Your task to perform on an android device: change notification settings in the gmail app Image 0: 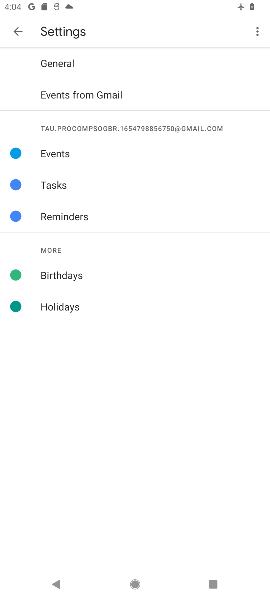
Step 0: click (13, 30)
Your task to perform on an android device: change notification settings in the gmail app Image 1: 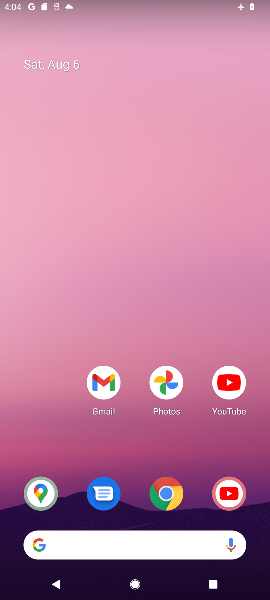
Step 1: drag from (159, 527) to (152, 141)
Your task to perform on an android device: change notification settings in the gmail app Image 2: 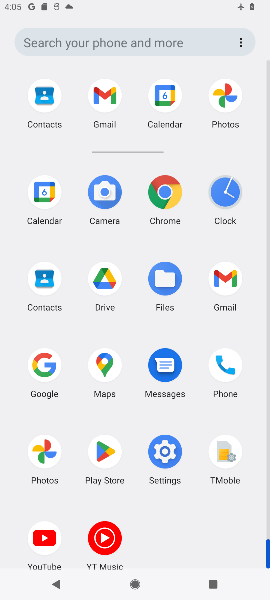
Step 2: click (221, 284)
Your task to perform on an android device: change notification settings in the gmail app Image 3: 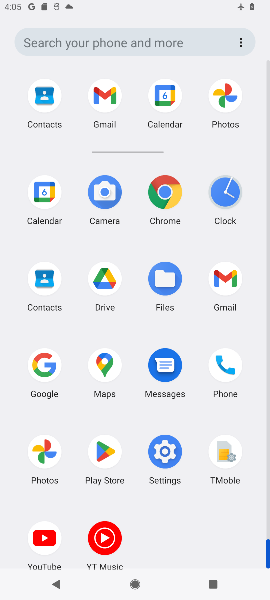
Step 3: click (221, 284)
Your task to perform on an android device: change notification settings in the gmail app Image 4: 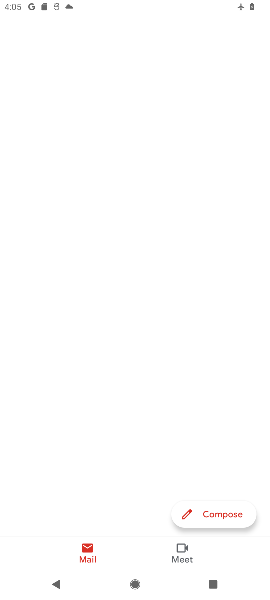
Step 4: click (221, 284)
Your task to perform on an android device: change notification settings in the gmail app Image 5: 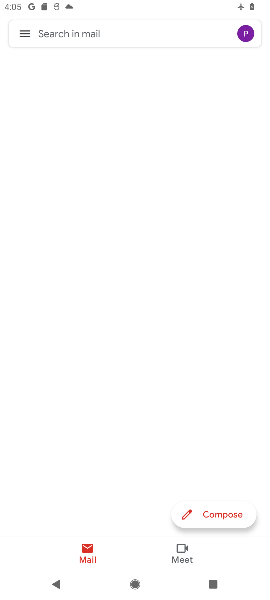
Step 5: click (221, 284)
Your task to perform on an android device: change notification settings in the gmail app Image 6: 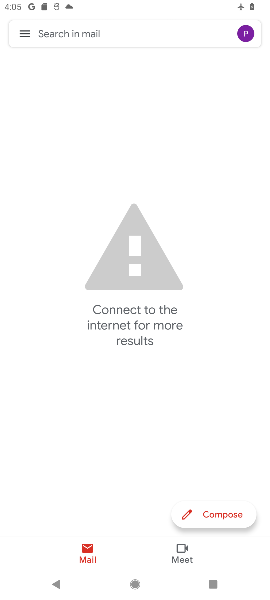
Step 6: click (25, 28)
Your task to perform on an android device: change notification settings in the gmail app Image 7: 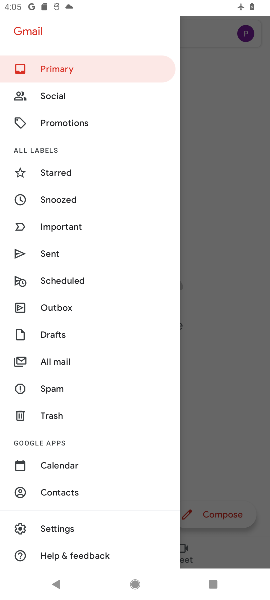
Step 7: click (60, 528)
Your task to perform on an android device: change notification settings in the gmail app Image 8: 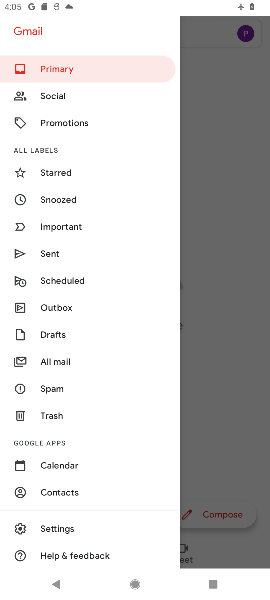
Step 8: click (60, 528)
Your task to perform on an android device: change notification settings in the gmail app Image 9: 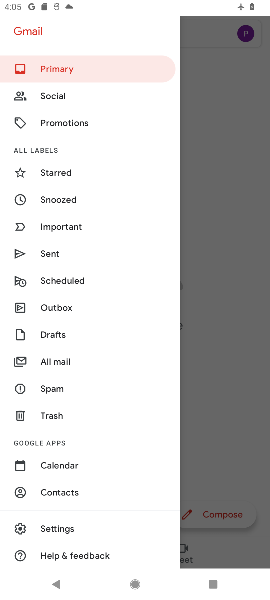
Step 9: click (60, 528)
Your task to perform on an android device: change notification settings in the gmail app Image 10: 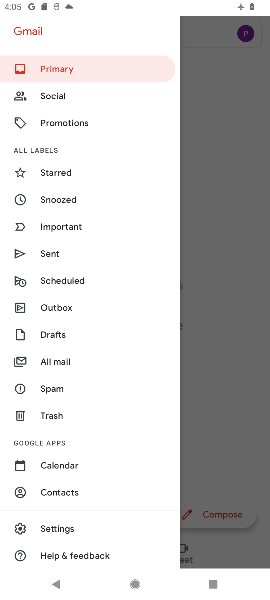
Step 10: click (60, 528)
Your task to perform on an android device: change notification settings in the gmail app Image 11: 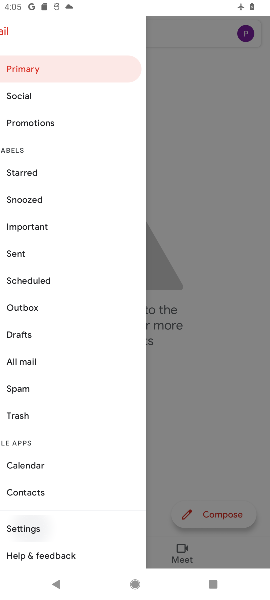
Step 11: click (60, 528)
Your task to perform on an android device: change notification settings in the gmail app Image 12: 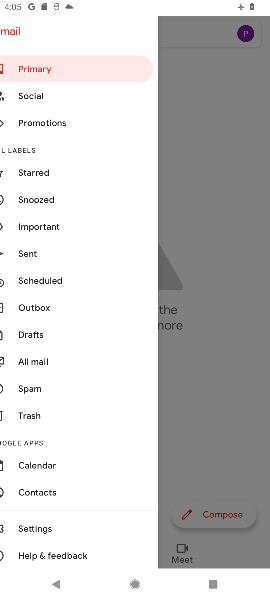
Step 12: click (60, 528)
Your task to perform on an android device: change notification settings in the gmail app Image 13: 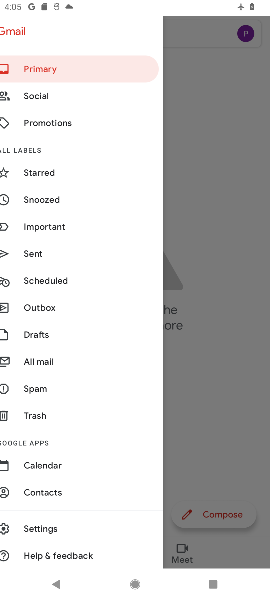
Step 13: click (61, 528)
Your task to perform on an android device: change notification settings in the gmail app Image 14: 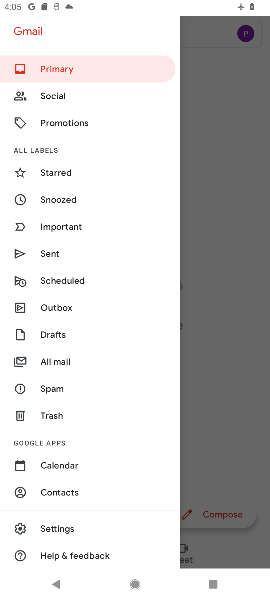
Step 14: click (53, 522)
Your task to perform on an android device: change notification settings in the gmail app Image 15: 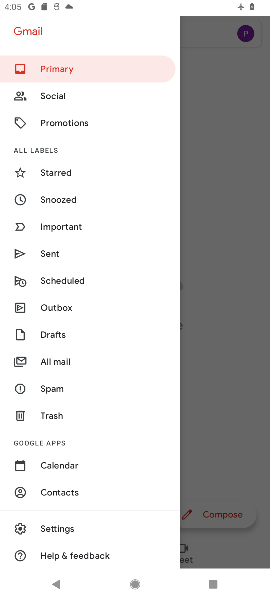
Step 15: click (53, 522)
Your task to perform on an android device: change notification settings in the gmail app Image 16: 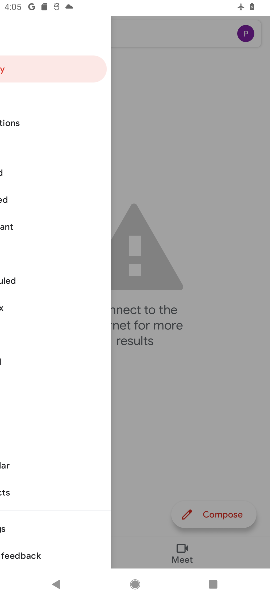
Step 16: click (53, 522)
Your task to perform on an android device: change notification settings in the gmail app Image 17: 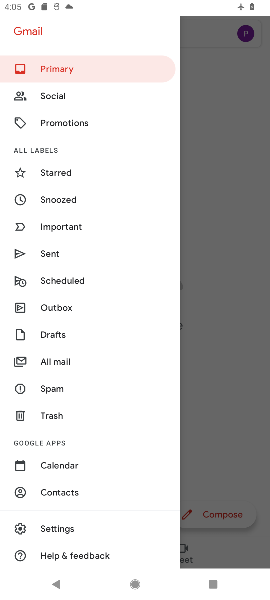
Step 17: click (61, 517)
Your task to perform on an android device: change notification settings in the gmail app Image 18: 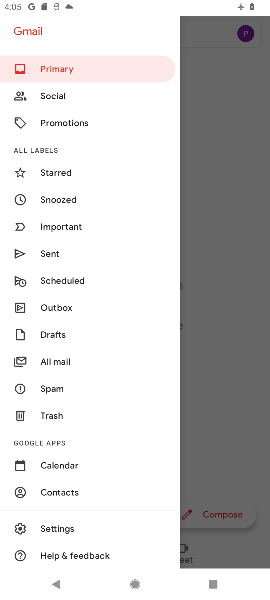
Step 18: click (58, 522)
Your task to perform on an android device: change notification settings in the gmail app Image 19: 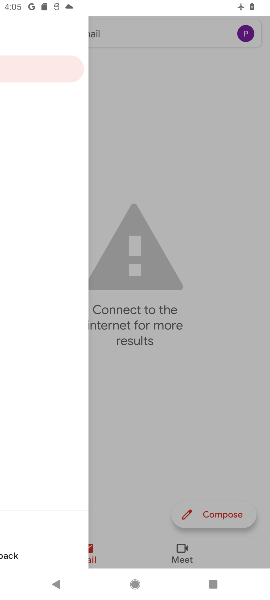
Step 19: click (57, 523)
Your task to perform on an android device: change notification settings in the gmail app Image 20: 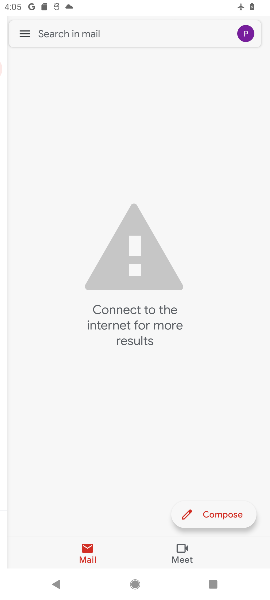
Step 20: click (56, 525)
Your task to perform on an android device: change notification settings in the gmail app Image 21: 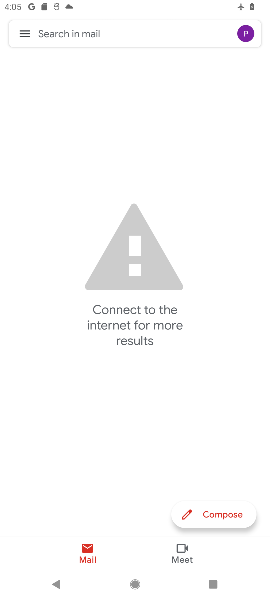
Step 21: click (56, 525)
Your task to perform on an android device: change notification settings in the gmail app Image 22: 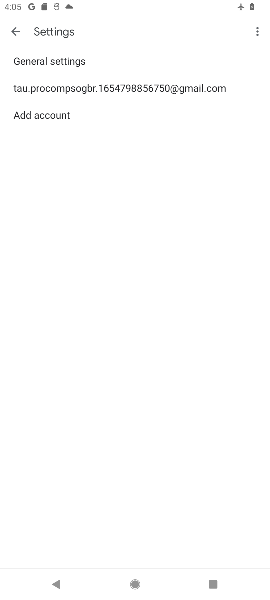
Step 22: click (72, 82)
Your task to perform on an android device: change notification settings in the gmail app Image 23: 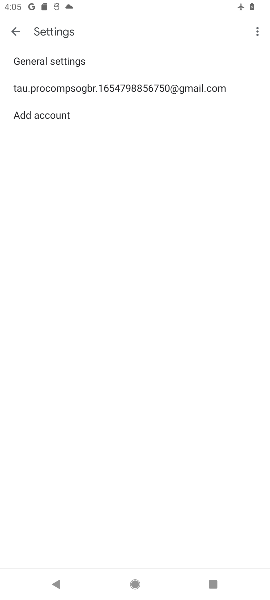
Step 23: click (72, 82)
Your task to perform on an android device: change notification settings in the gmail app Image 24: 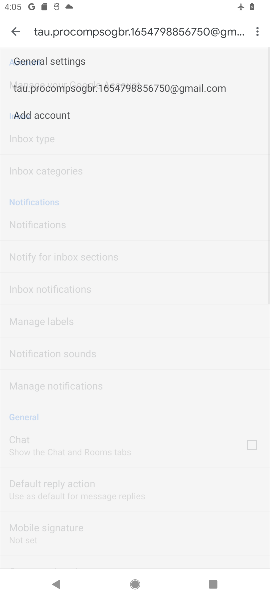
Step 24: click (70, 80)
Your task to perform on an android device: change notification settings in the gmail app Image 25: 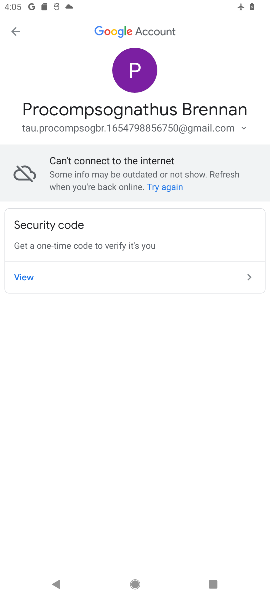
Step 25: click (16, 38)
Your task to perform on an android device: change notification settings in the gmail app Image 26: 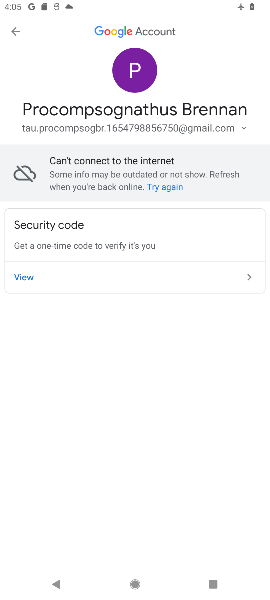
Step 26: click (12, 33)
Your task to perform on an android device: change notification settings in the gmail app Image 27: 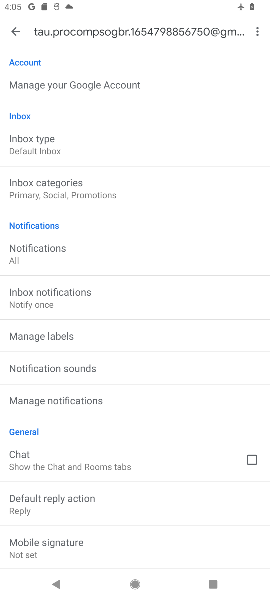
Step 27: click (35, 243)
Your task to perform on an android device: change notification settings in the gmail app Image 28: 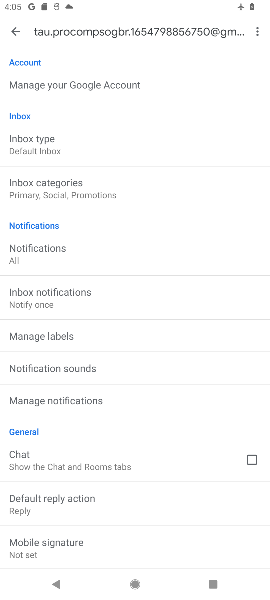
Step 28: click (35, 243)
Your task to perform on an android device: change notification settings in the gmail app Image 29: 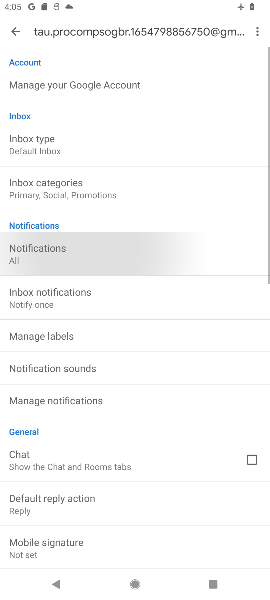
Step 29: click (35, 243)
Your task to perform on an android device: change notification settings in the gmail app Image 30: 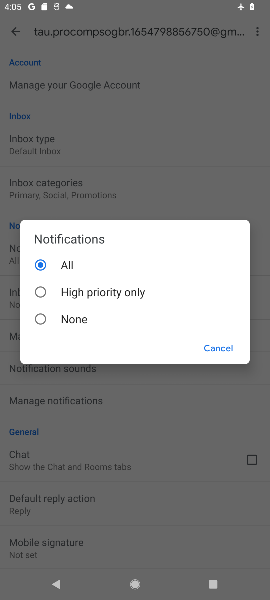
Step 30: click (36, 285)
Your task to perform on an android device: change notification settings in the gmail app Image 31: 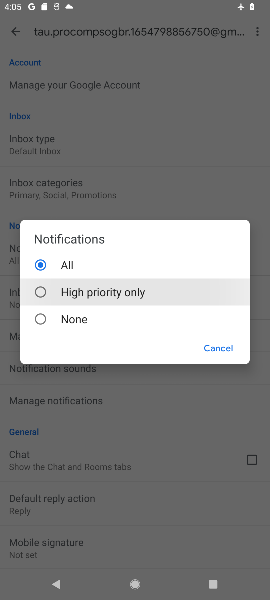
Step 31: click (36, 285)
Your task to perform on an android device: change notification settings in the gmail app Image 32: 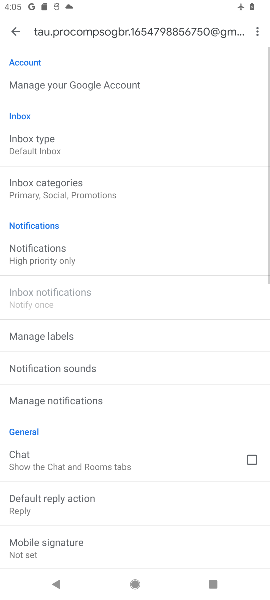
Step 32: task complete